Your task to perform on an android device: Toggle the flashlight Image 0: 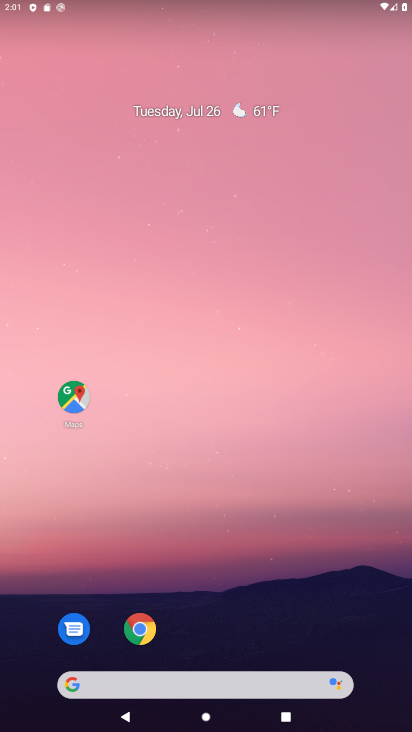
Step 0: drag from (250, 594) to (203, 5)
Your task to perform on an android device: Toggle the flashlight Image 1: 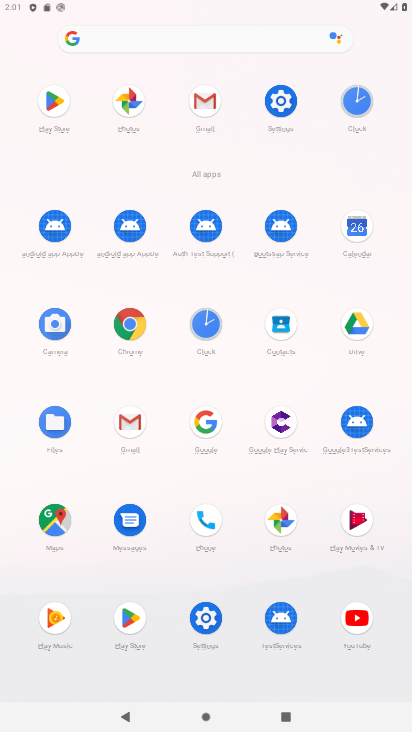
Step 1: click (280, 98)
Your task to perform on an android device: Toggle the flashlight Image 2: 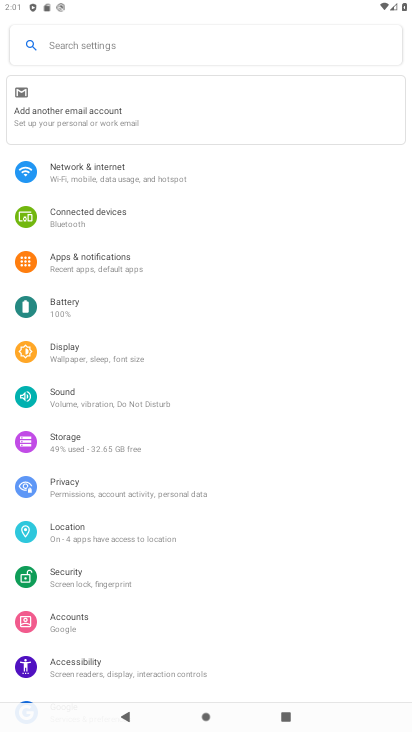
Step 2: click (69, 348)
Your task to perform on an android device: Toggle the flashlight Image 3: 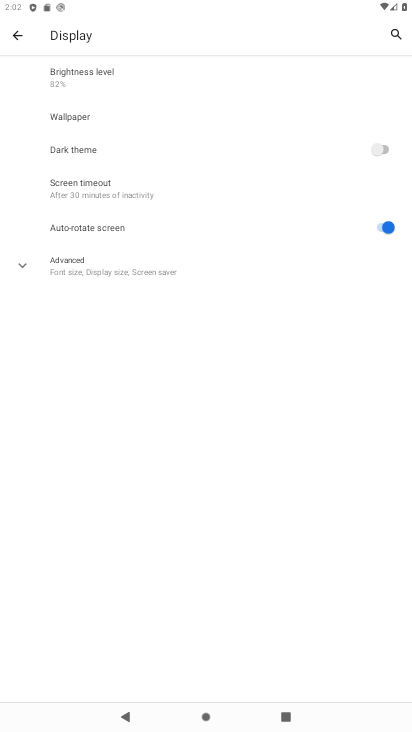
Step 3: task complete